Your task to perform on an android device: change notifications settings Image 0: 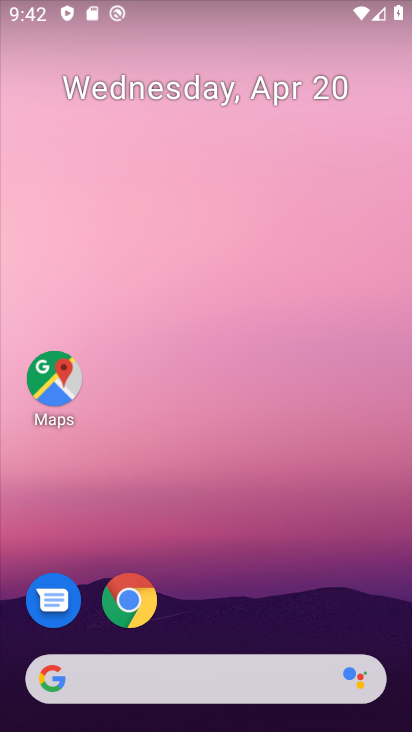
Step 0: drag from (221, 590) to (225, 201)
Your task to perform on an android device: change notifications settings Image 1: 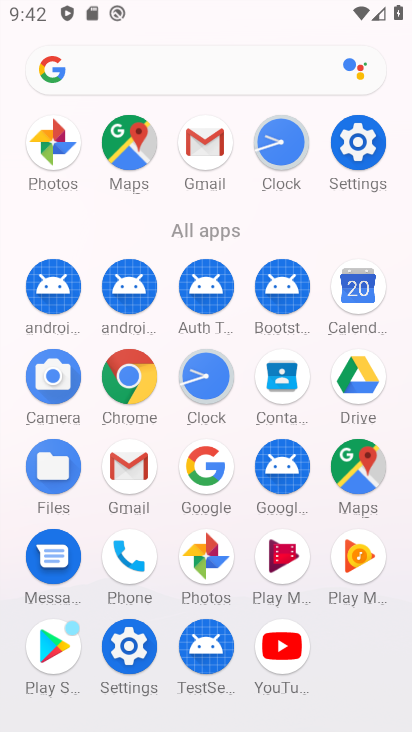
Step 1: click (350, 151)
Your task to perform on an android device: change notifications settings Image 2: 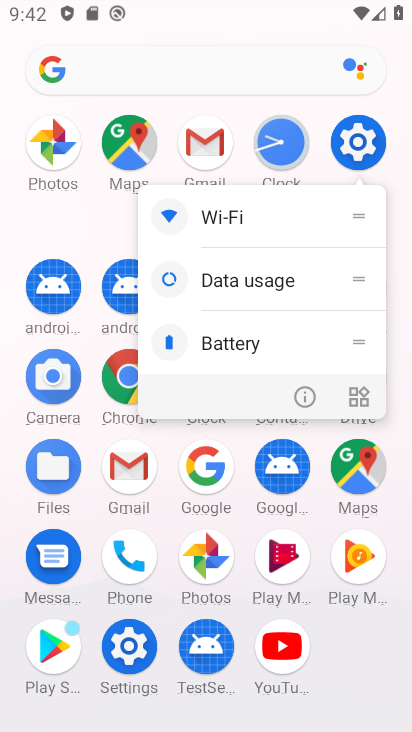
Step 2: click (347, 151)
Your task to perform on an android device: change notifications settings Image 3: 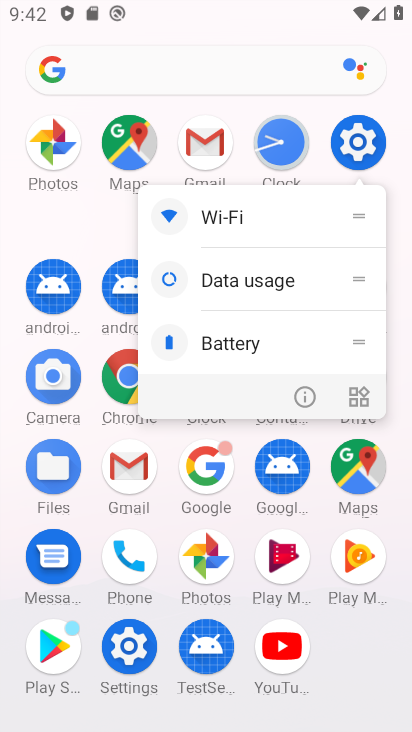
Step 3: click (371, 131)
Your task to perform on an android device: change notifications settings Image 4: 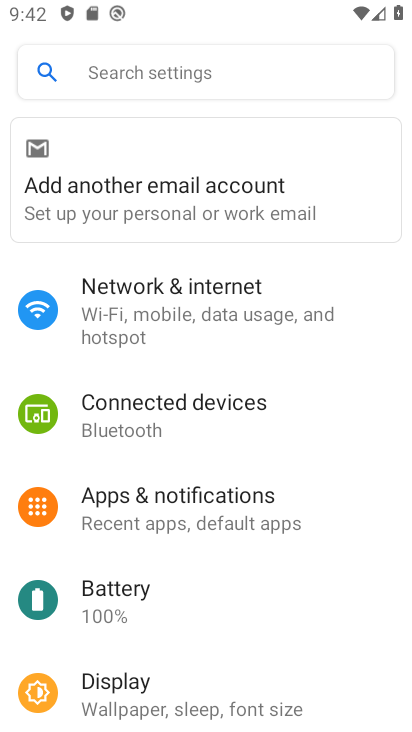
Step 4: click (190, 501)
Your task to perform on an android device: change notifications settings Image 5: 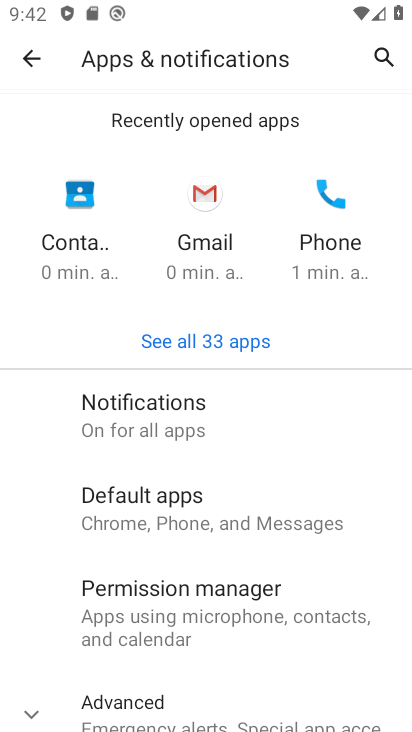
Step 5: click (204, 416)
Your task to perform on an android device: change notifications settings Image 6: 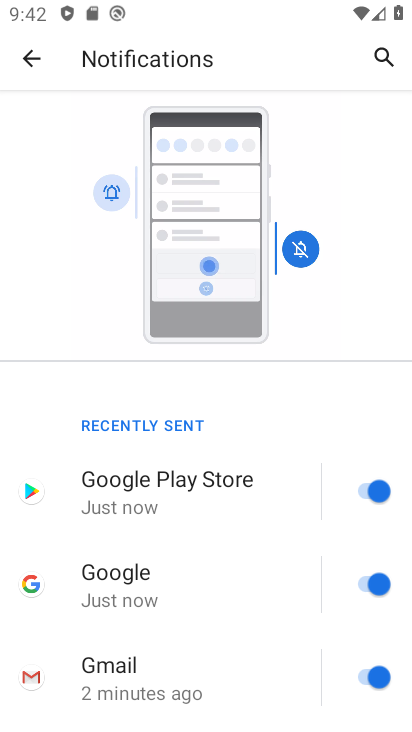
Step 6: click (360, 490)
Your task to perform on an android device: change notifications settings Image 7: 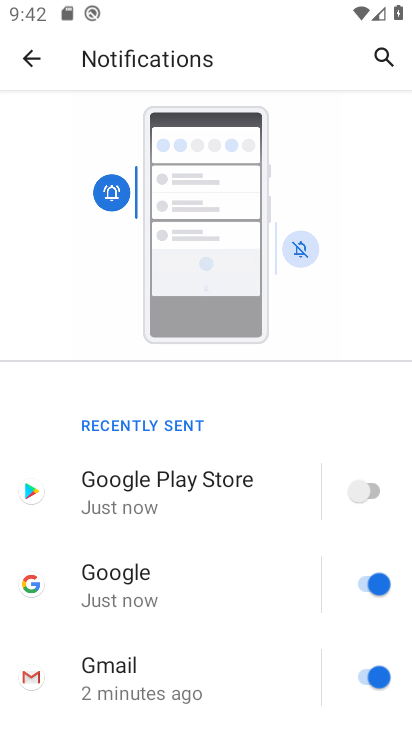
Step 7: task complete